Your task to perform on an android device: Open accessibility settings Image 0: 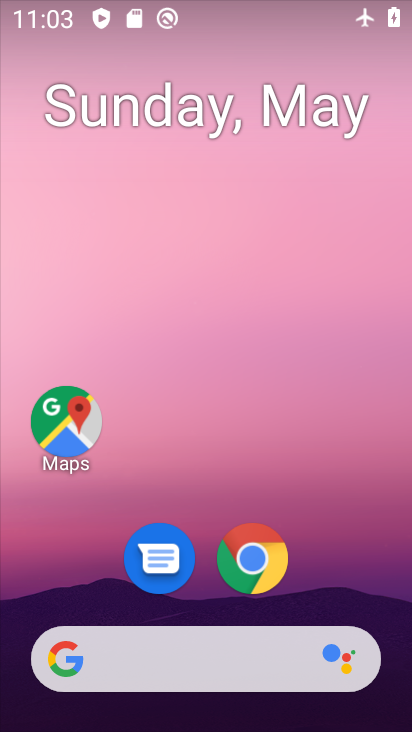
Step 0: drag from (347, 576) to (365, 140)
Your task to perform on an android device: Open accessibility settings Image 1: 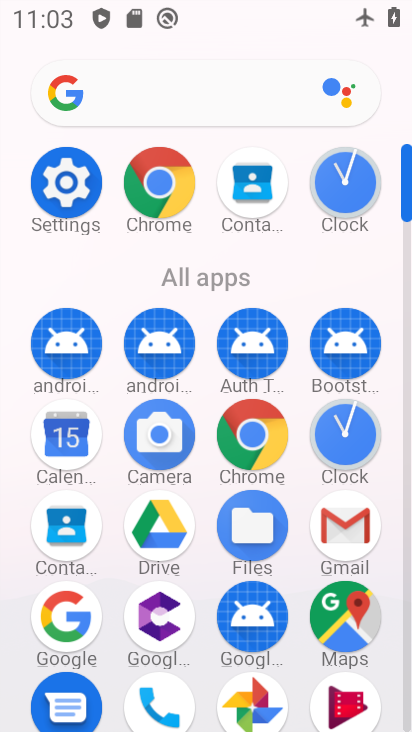
Step 1: click (92, 192)
Your task to perform on an android device: Open accessibility settings Image 2: 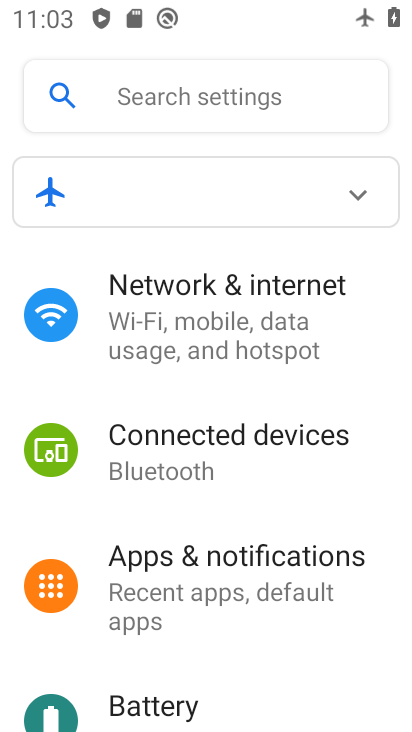
Step 2: drag from (350, 655) to (361, 491)
Your task to perform on an android device: Open accessibility settings Image 3: 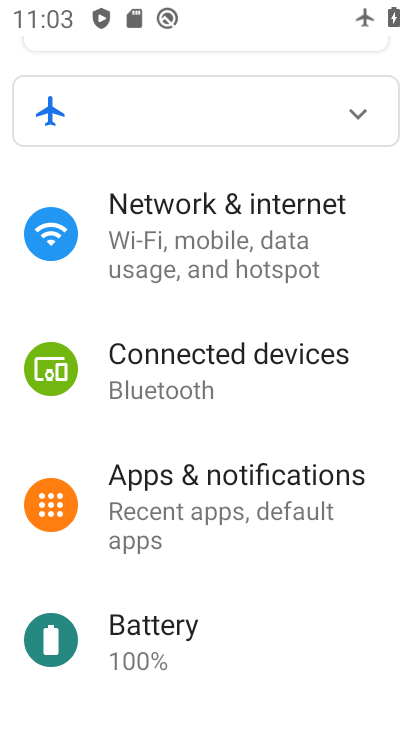
Step 3: drag from (351, 675) to (360, 465)
Your task to perform on an android device: Open accessibility settings Image 4: 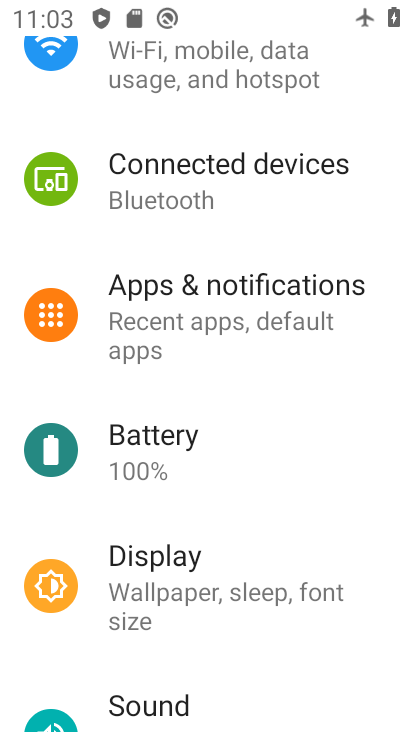
Step 4: drag from (349, 646) to (354, 494)
Your task to perform on an android device: Open accessibility settings Image 5: 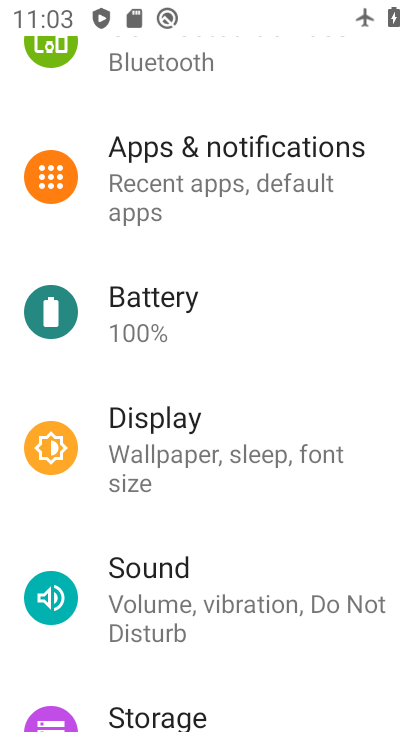
Step 5: drag from (351, 685) to (350, 523)
Your task to perform on an android device: Open accessibility settings Image 6: 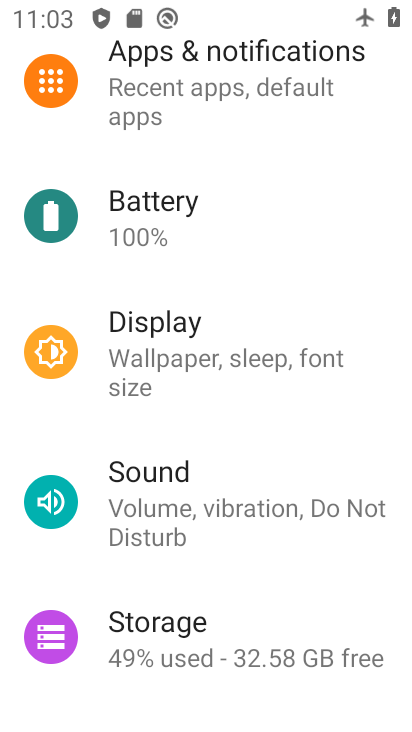
Step 6: drag from (342, 717) to (345, 566)
Your task to perform on an android device: Open accessibility settings Image 7: 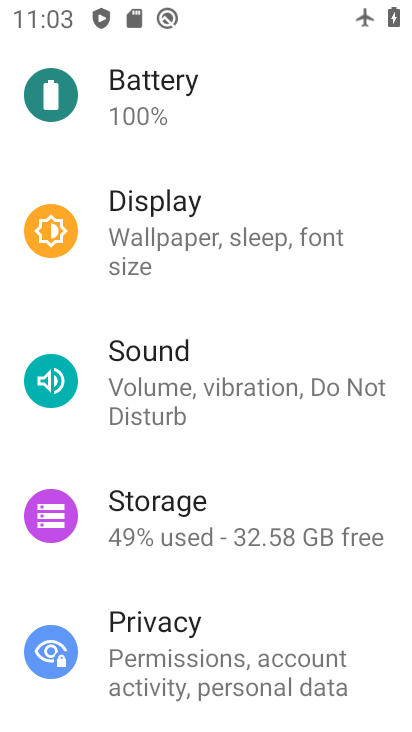
Step 7: drag from (341, 610) to (337, 492)
Your task to perform on an android device: Open accessibility settings Image 8: 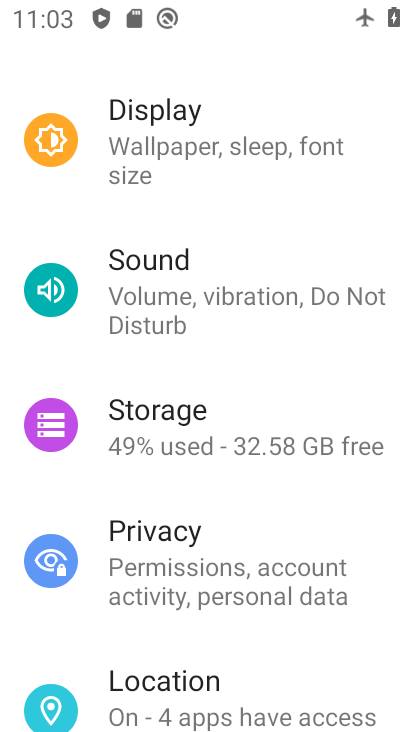
Step 8: drag from (308, 648) to (304, 527)
Your task to perform on an android device: Open accessibility settings Image 9: 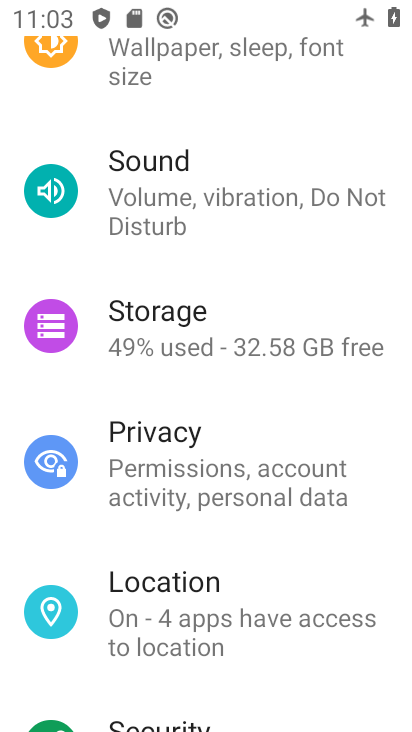
Step 9: drag from (377, 685) to (371, 504)
Your task to perform on an android device: Open accessibility settings Image 10: 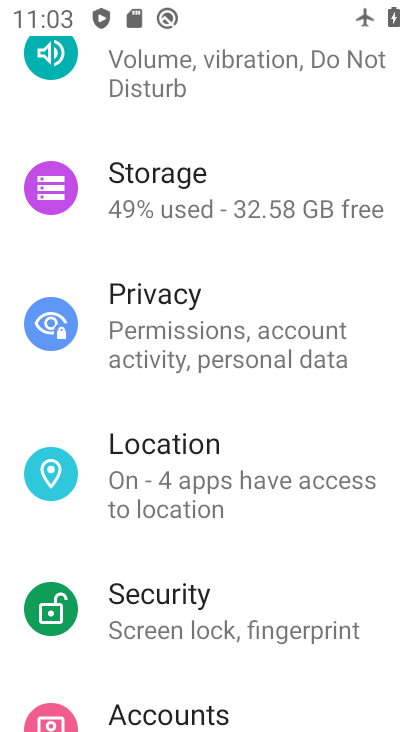
Step 10: drag from (361, 662) to (365, 533)
Your task to perform on an android device: Open accessibility settings Image 11: 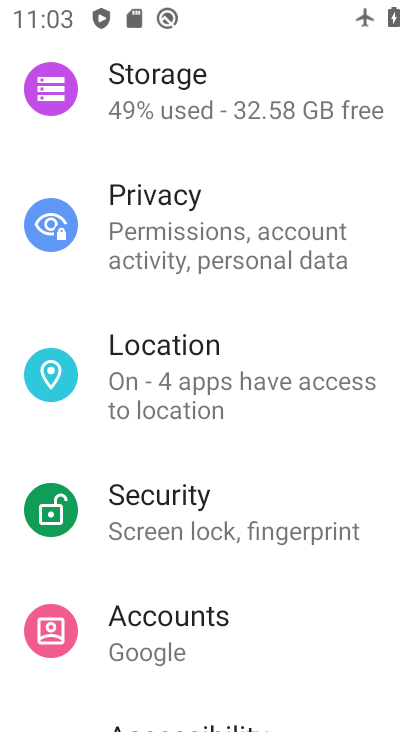
Step 11: drag from (333, 649) to (331, 500)
Your task to perform on an android device: Open accessibility settings Image 12: 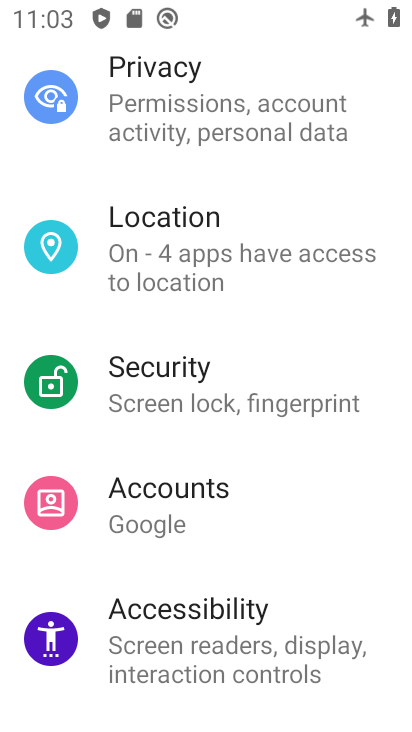
Step 12: click (277, 657)
Your task to perform on an android device: Open accessibility settings Image 13: 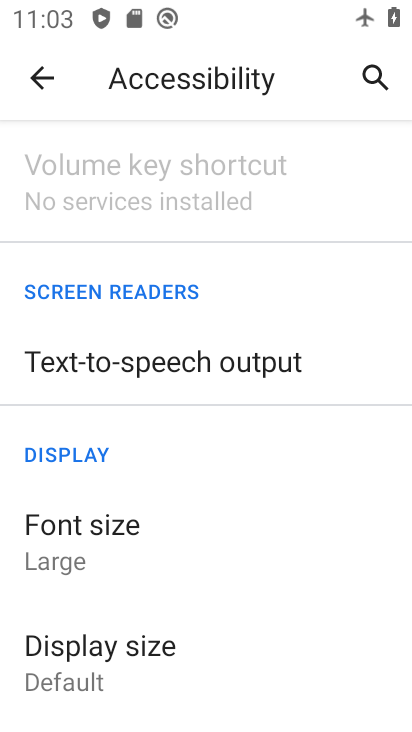
Step 13: task complete